Your task to perform on an android device: turn on translation in the chrome app Image 0: 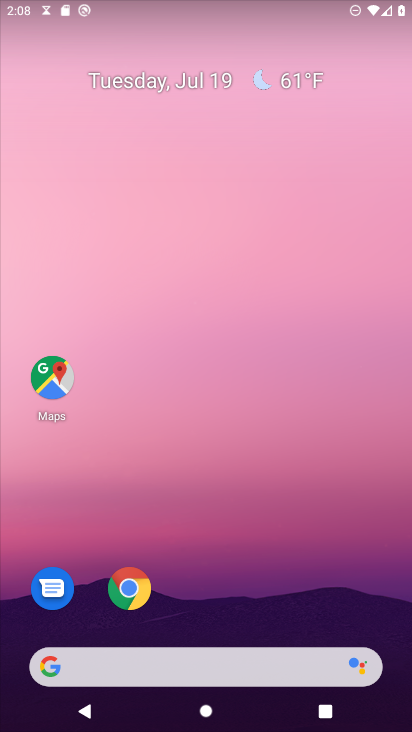
Step 0: drag from (222, 676) to (254, 169)
Your task to perform on an android device: turn on translation in the chrome app Image 1: 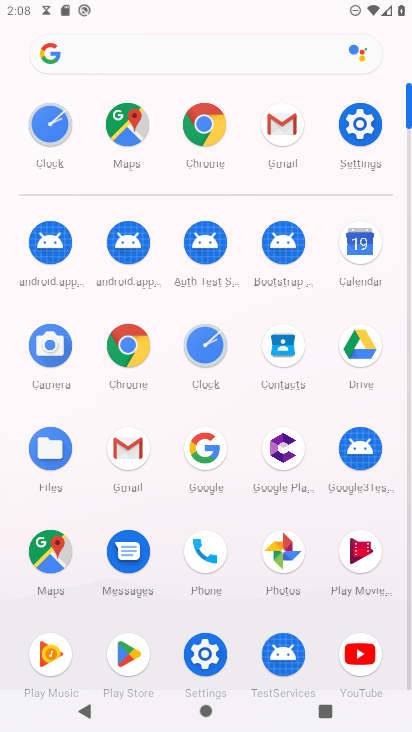
Step 1: click (199, 144)
Your task to perform on an android device: turn on translation in the chrome app Image 2: 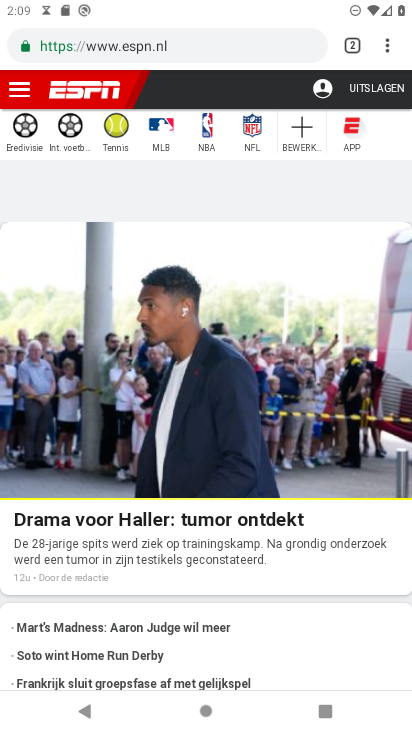
Step 2: click (384, 49)
Your task to perform on an android device: turn on translation in the chrome app Image 3: 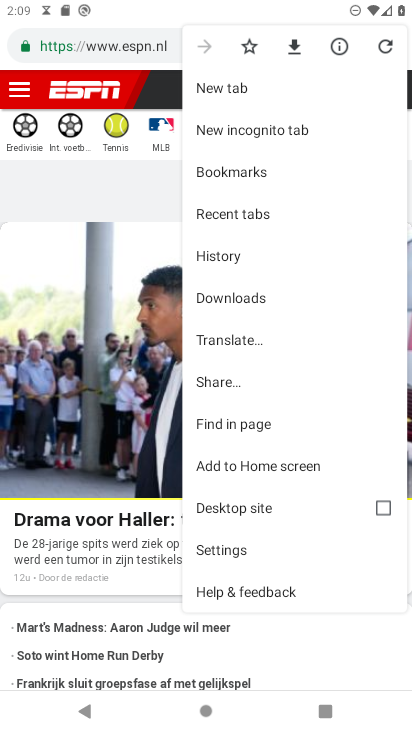
Step 3: click (227, 550)
Your task to perform on an android device: turn on translation in the chrome app Image 4: 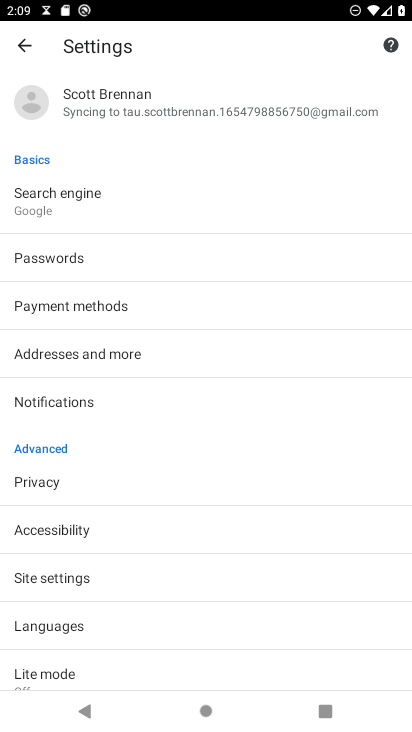
Step 4: click (76, 627)
Your task to perform on an android device: turn on translation in the chrome app Image 5: 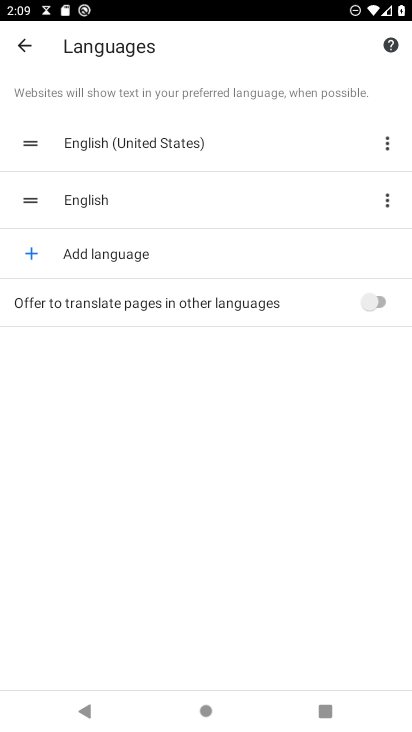
Step 5: click (336, 310)
Your task to perform on an android device: turn on translation in the chrome app Image 6: 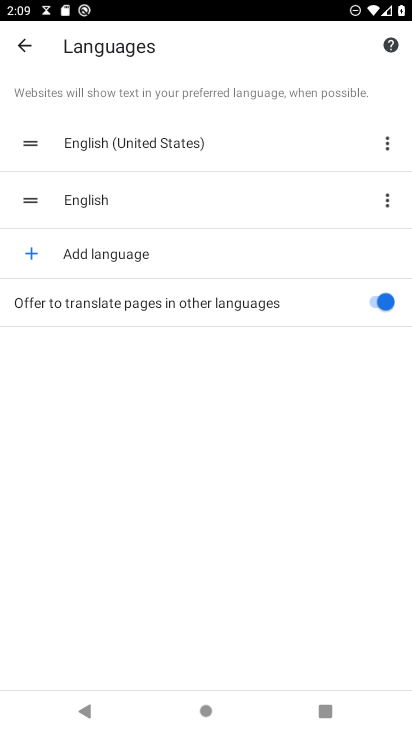
Step 6: task complete